Your task to perform on an android device: Is it going to rain today? Image 0: 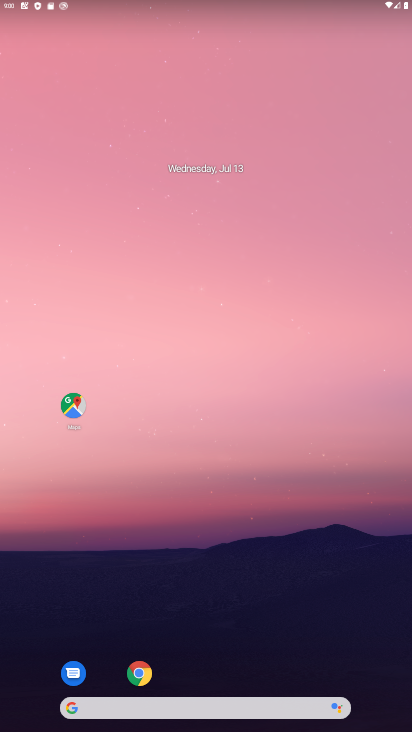
Step 0: click (198, 707)
Your task to perform on an android device: Is it going to rain today? Image 1: 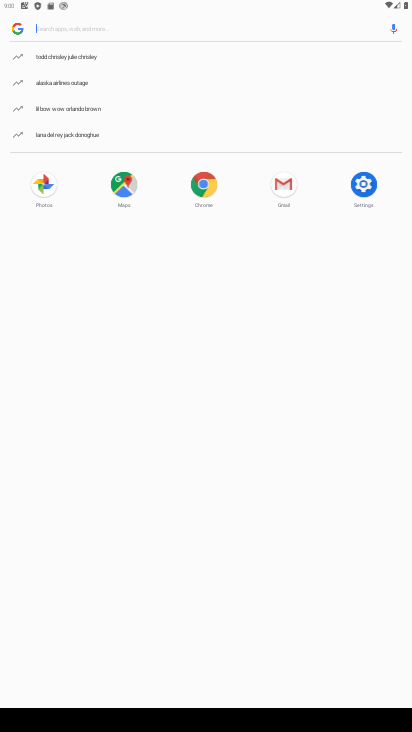
Step 1: type "weather"
Your task to perform on an android device: Is it going to rain today? Image 2: 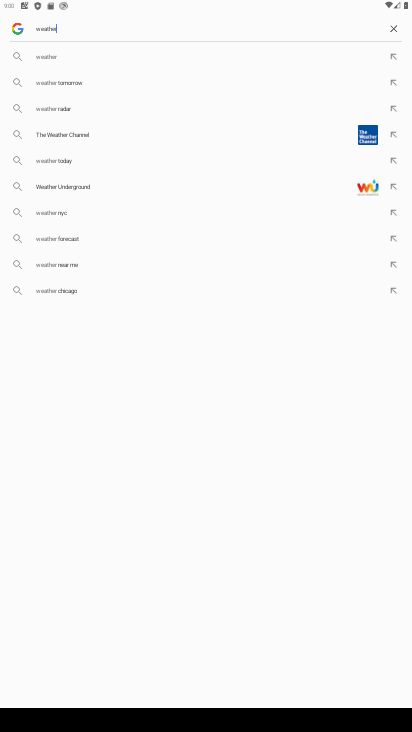
Step 2: click (52, 56)
Your task to perform on an android device: Is it going to rain today? Image 3: 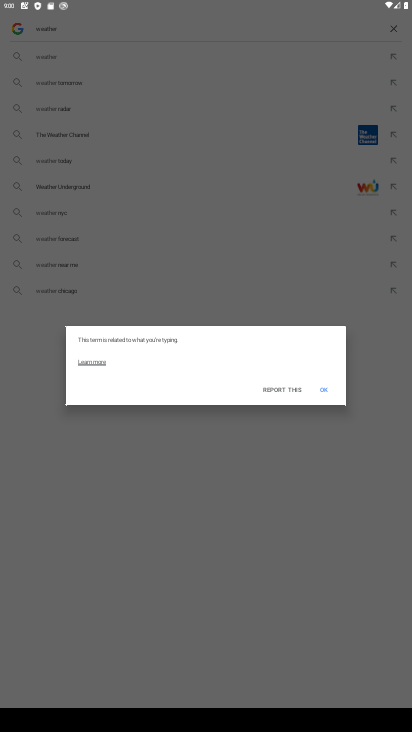
Step 3: click (332, 388)
Your task to perform on an android device: Is it going to rain today? Image 4: 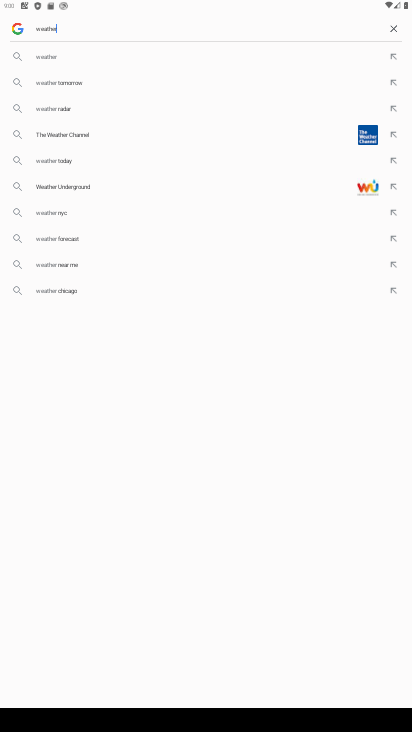
Step 4: click (30, 60)
Your task to perform on an android device: Is it going to rain today? Image 5: 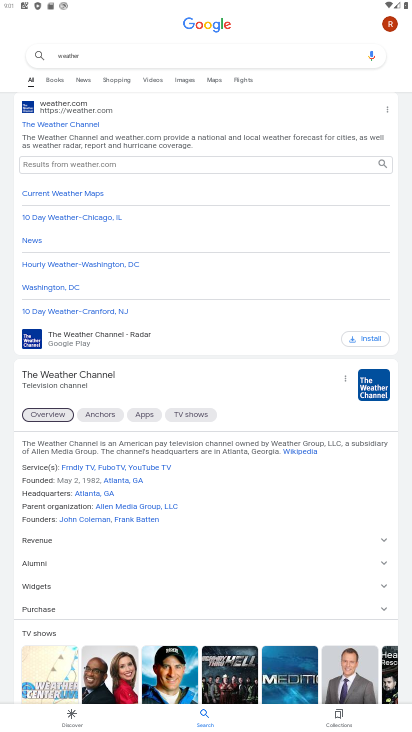
Step 5: task complete